Your task to perform on an android device: empty trash in google photos Image 0: 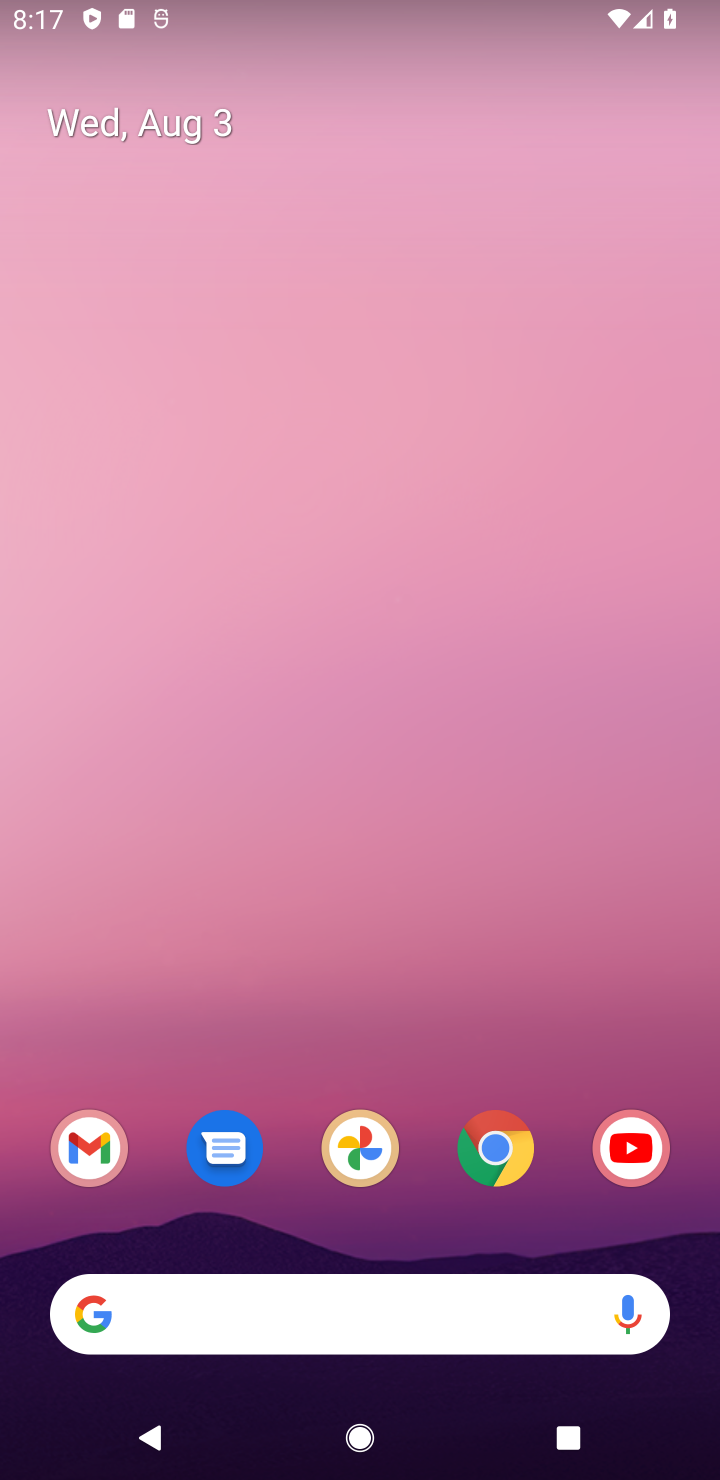
Step 0: click (350, 1175)
Your task to perform on an android device: empty trash in google photos Image 1: 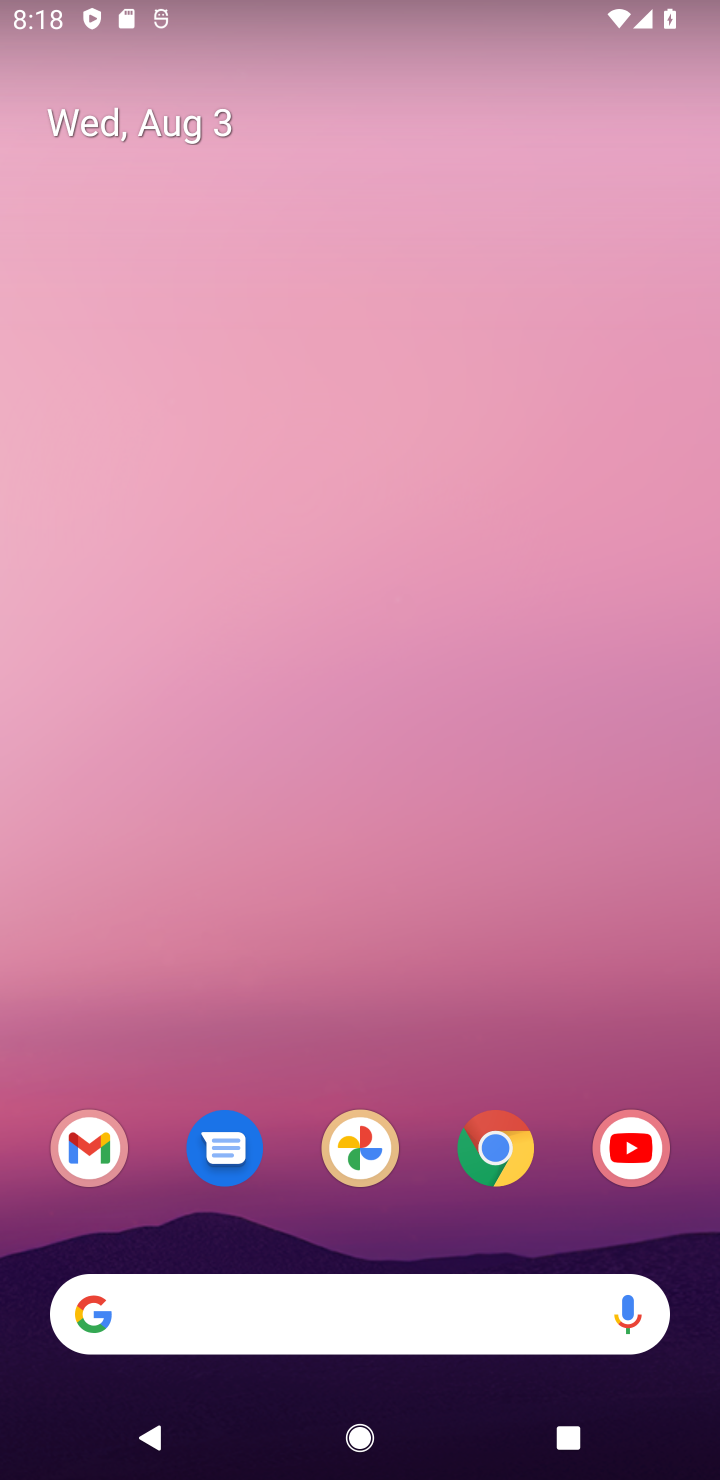
Step 1: click (356, 1168)
Your task to perform on an android device: empty trash in google photos Image 2: 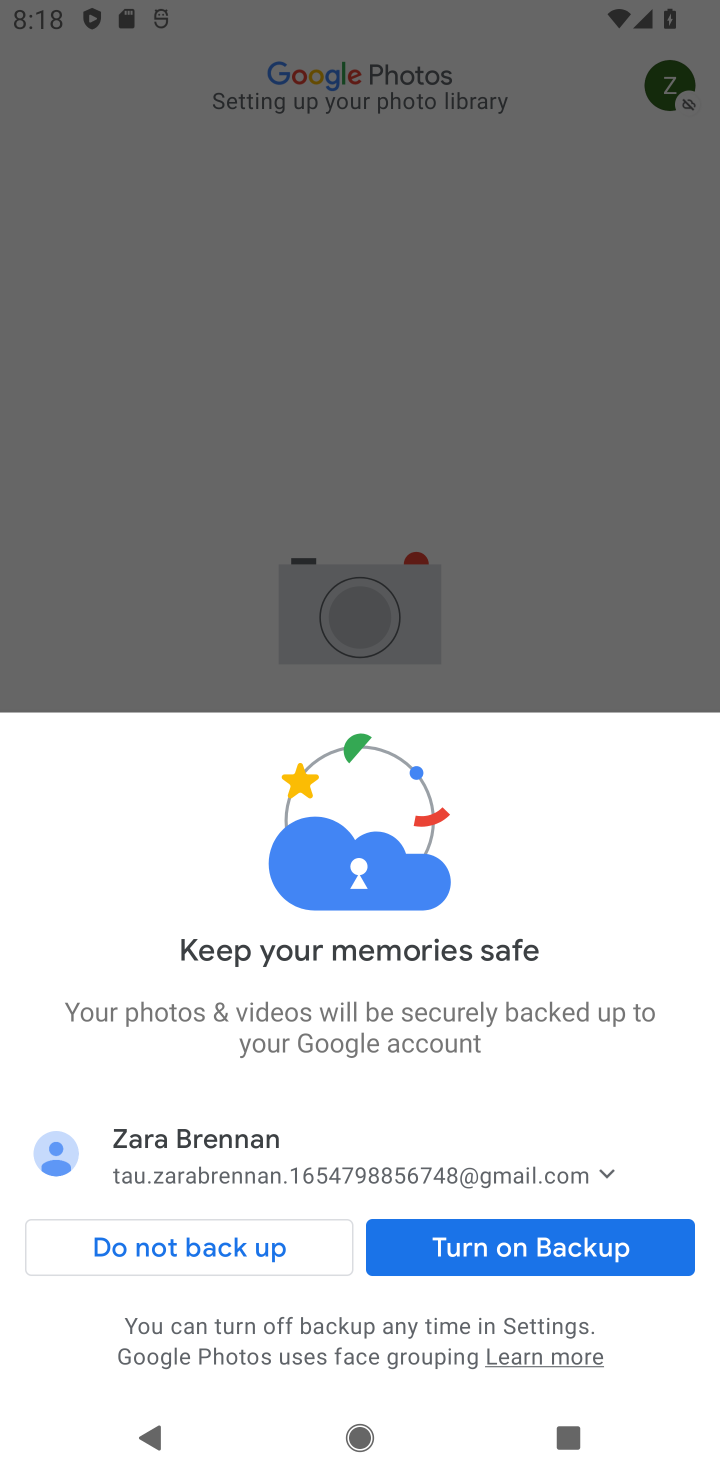
Step 2: click (525, 1257)
Your task to perform on an android device: empty trash in google photos Image 3: 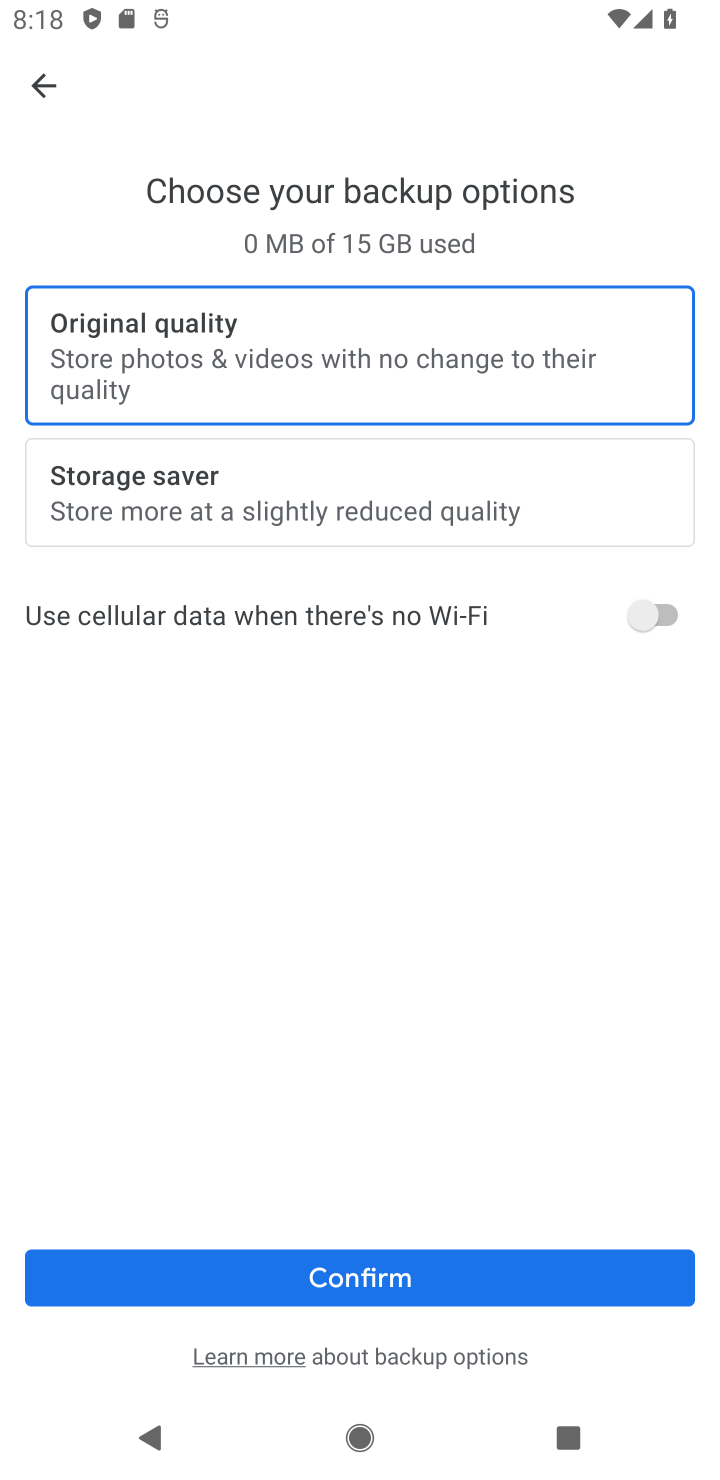
Step 3: click (47, 94)
Your task to perform on an android device: empty trash in google photos Image 4: 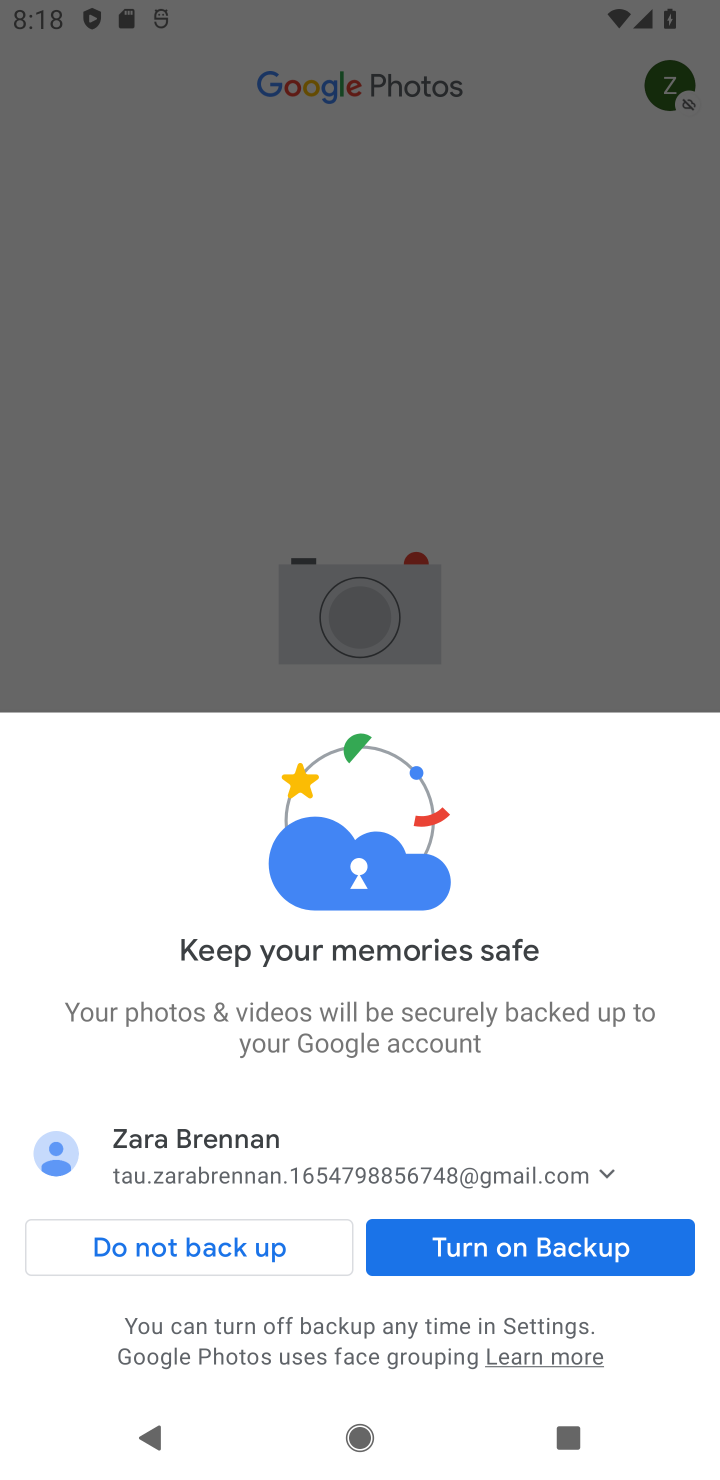
Step 4: click (198, 1266)
Your task to perform on an android device: empty trash in google photos Image 5: 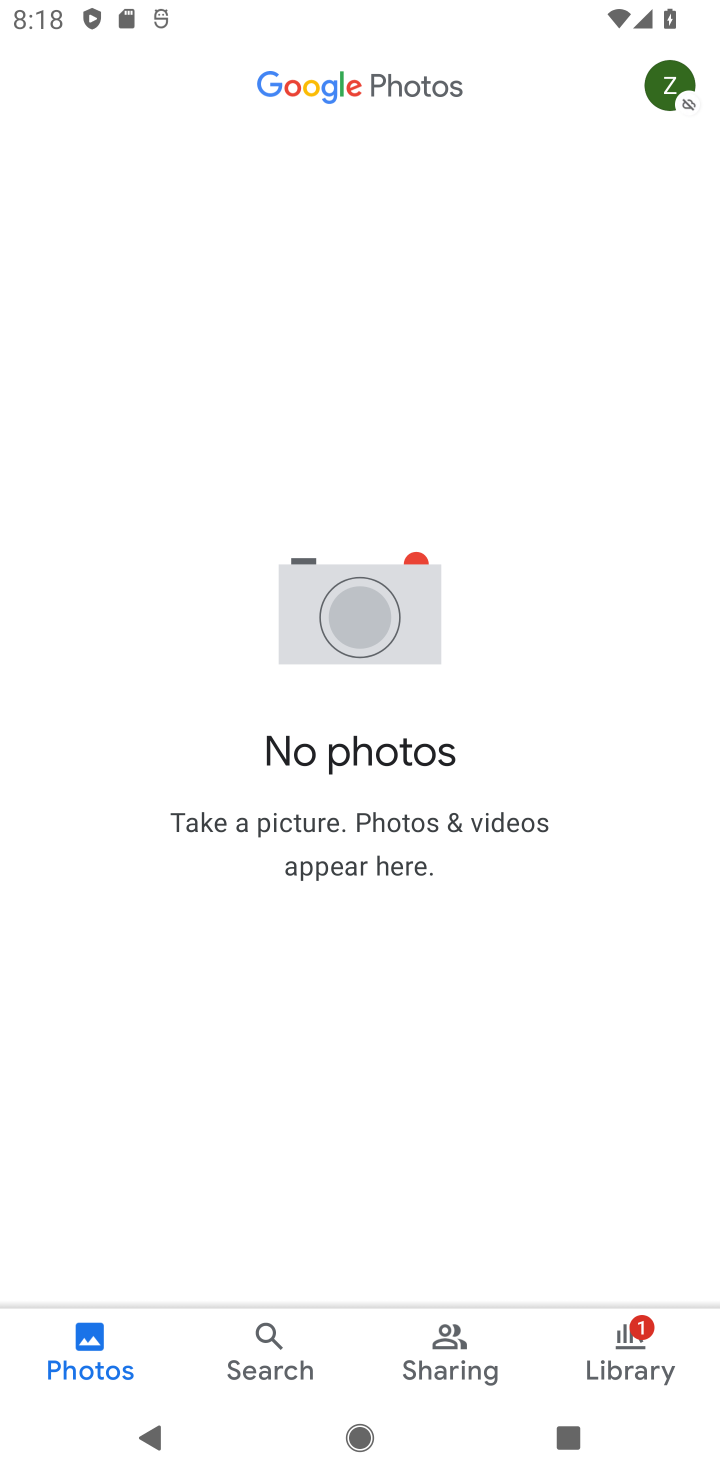
Step 5: click (648, 1356)
Your task to perform on an android device: empty trash in google photos Image 6: 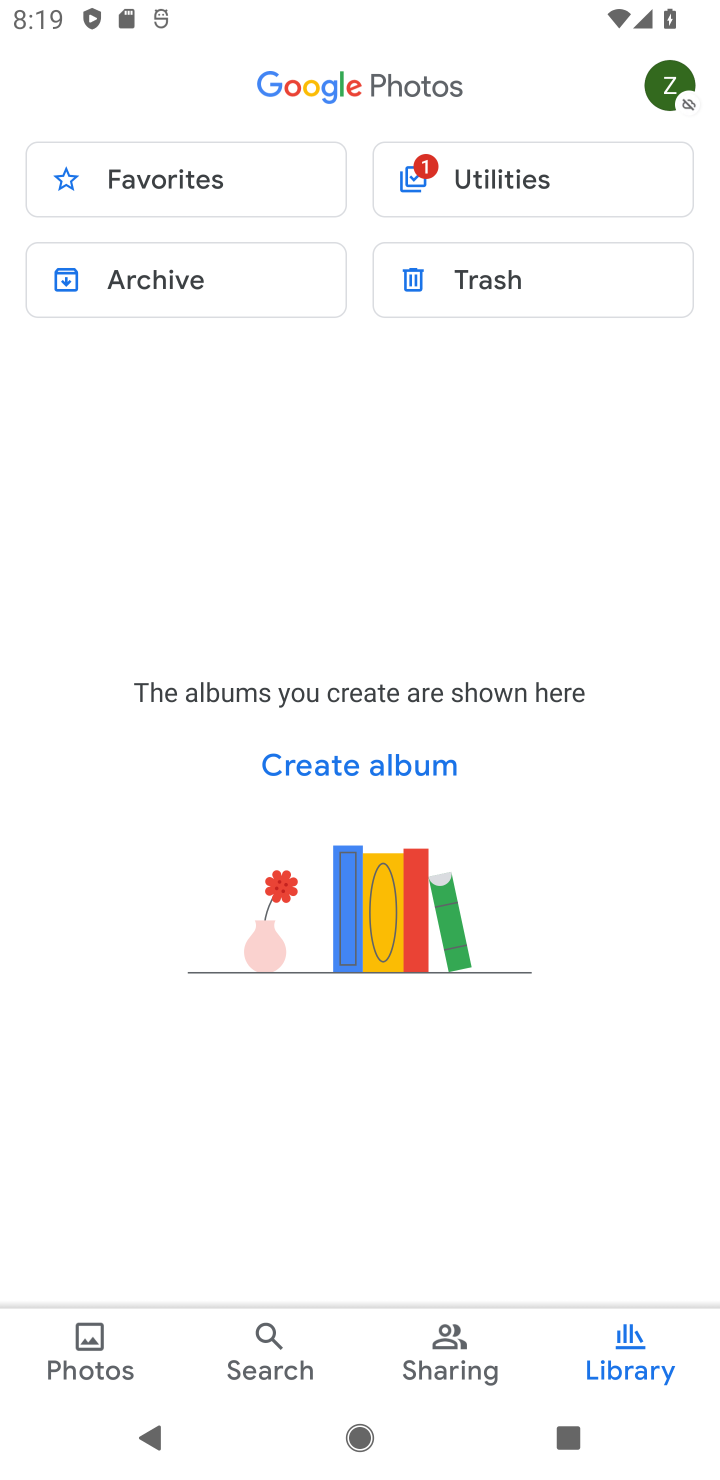
Step 6: click (438, 277)
Your task to perform on an android device: empty trash in google photos Image 7: 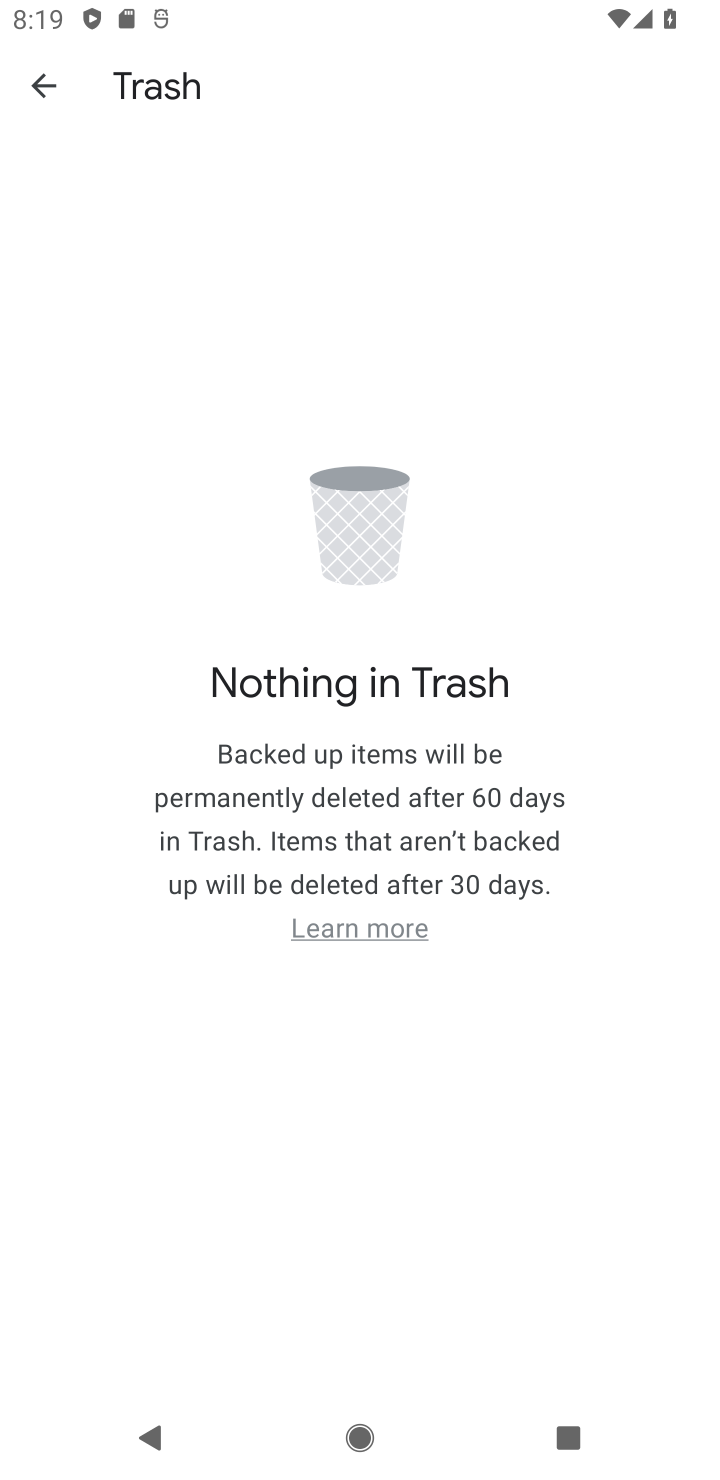
Step 7: task complete